Your task to perform on an android device: turn on translation in the chrome app Image 0: 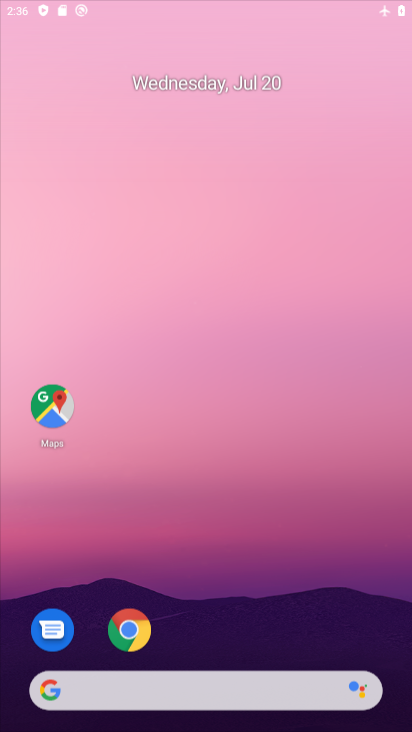
Step 0: drag from (217, 96) to (189, 57)
Your task to perform on an android device: turn on translation in the chrome app Image 1: 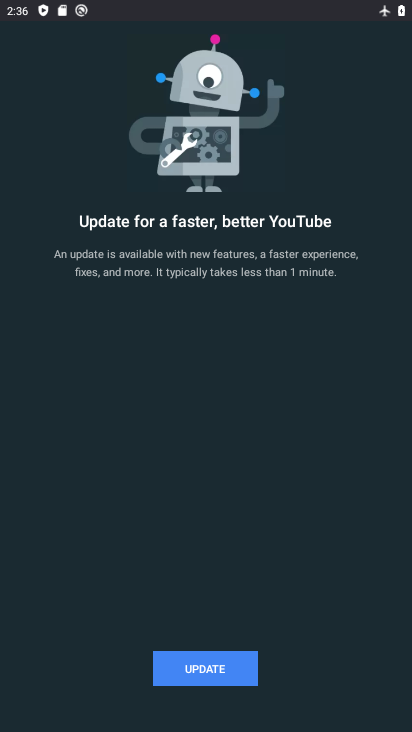
Step 1: press back button
Your task to perform on an android device: turn on translation in the chrome app Image 2: 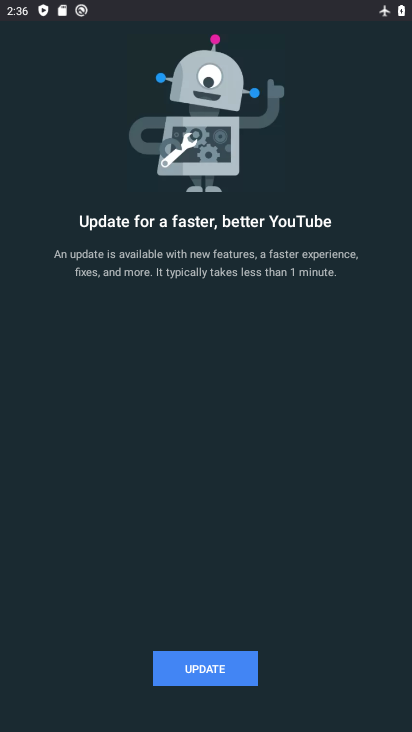
Step 2: press back button
Your task to perform on an android device: turn on translation in the chrome app Image 3: 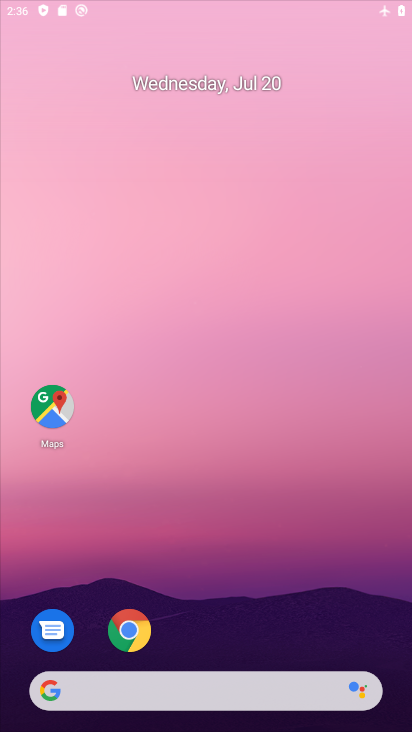
Step 3: press back button
Your task to perform on an android device: turn on translation in the chrome app Image 4: 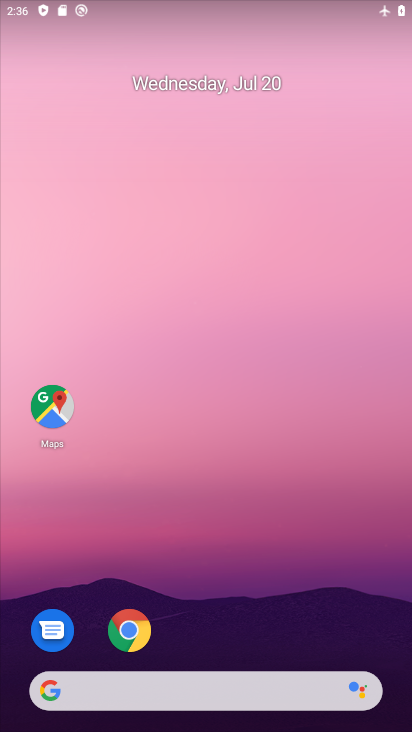
Step 4: click (186, 250)
Your task to perform on an android device: turn on translation in the chrome app Image 5: 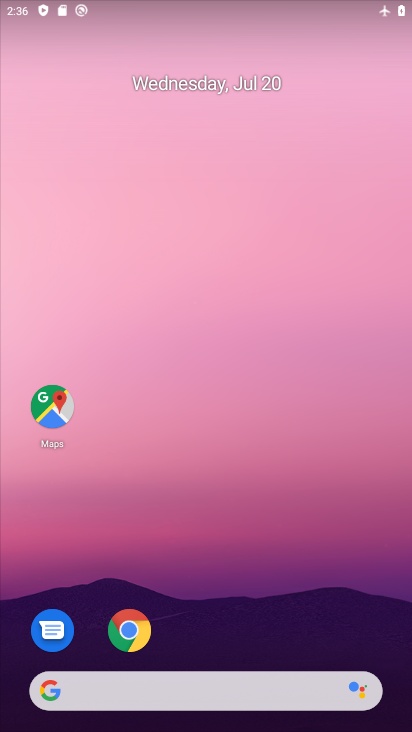
Step 5: drag from (217, 644) to (177, 344)
Your task to perform on an android device: turn on translation in the chrome app Image 6: 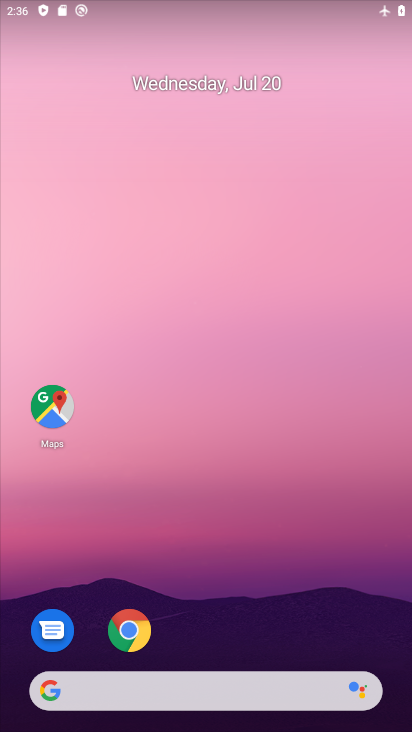
Step 6: drag from (172, 446) to (166, 13)
Your task to perform on an android device: turn on translation in the chrome app Image 7: 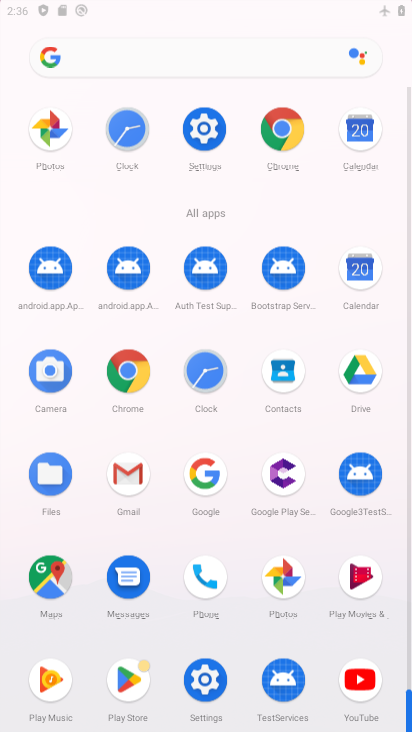
Step 7: drag from (249, 555) to (214, 117)
Your task to perform on an android device: turn on translation in the chrome app Image 8: 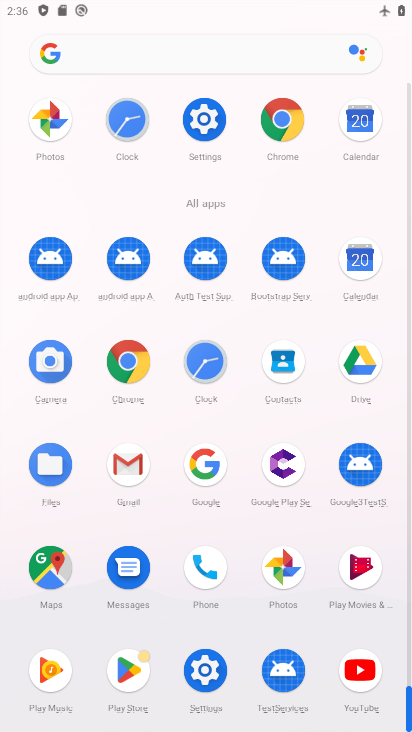
Step 8: click (292, 110)
Your task to perform on an android device: turn on translation in the chrome app Image 9: 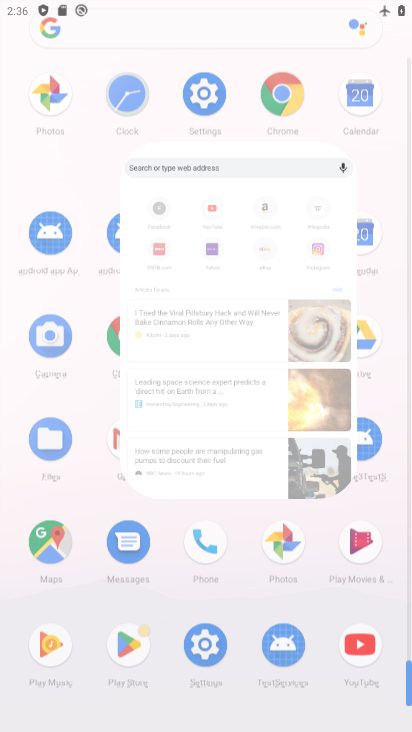
Step 9: click (289, 109)
Your task to perform on an android device: turn on translation in the chrome app Image 10: 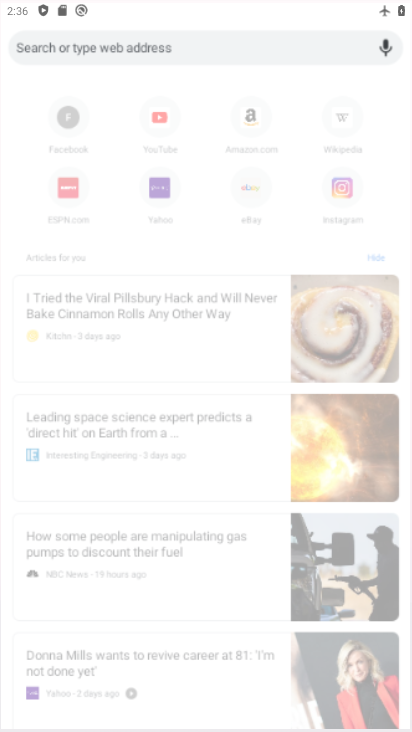
Step 10: click (289, 109)
Your task to perform on an android device: turn on translation in the chrome app Image 11: 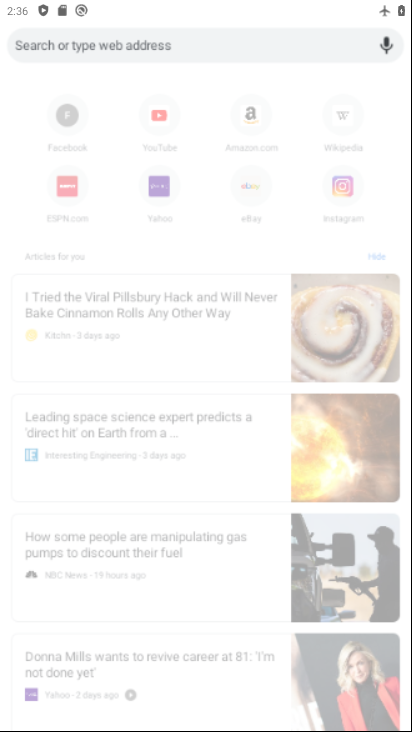
Step 11: click (289, 109)
Your task to perform on an android device: turn on translation in the chrome app Image 12: 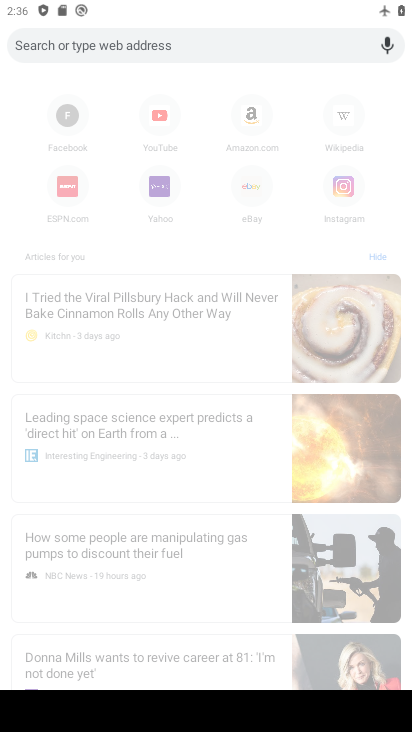
Step 12: click (259, 244)
Your task to perform on an android device: turn on translation in the chrome app Image 13: 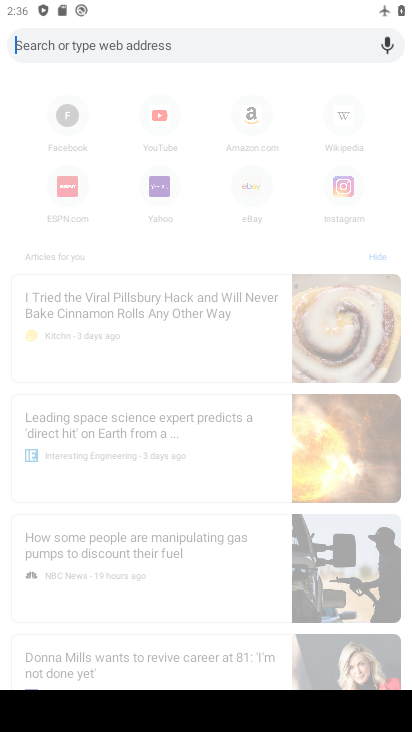
Step 13: click (259, 244)
Your task to perform on an android device: turn on translation in the chrome app Image 14: 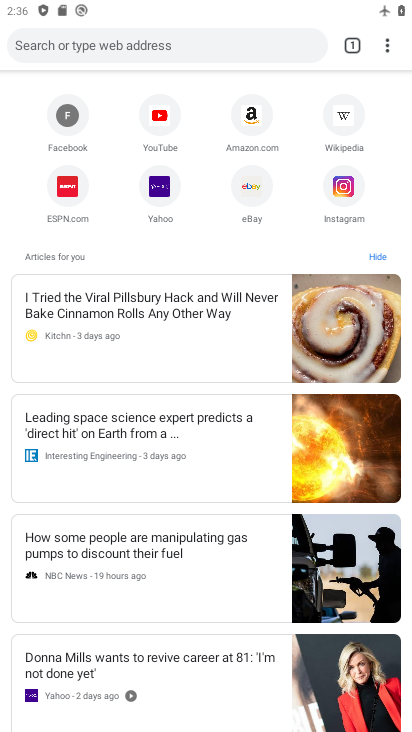
Step 14: click (224, 192)
Your task to perform on an android device: turn on translation in the chrome app Image 15: 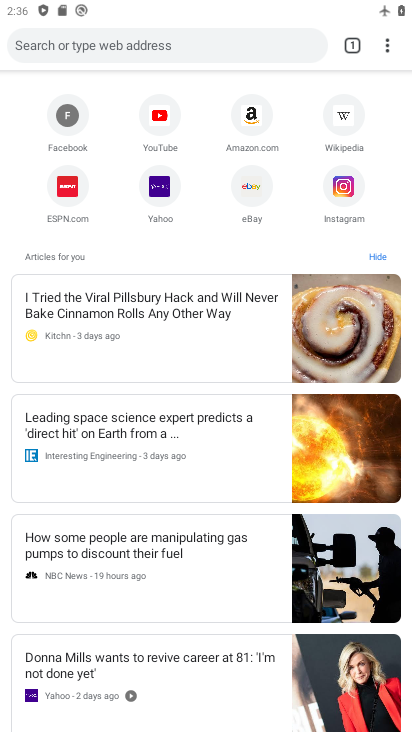
Step 15: drag from (390, 47) to (235, 499)
Your task to perform on an android device: turn on translation in the chrome app Image 16: 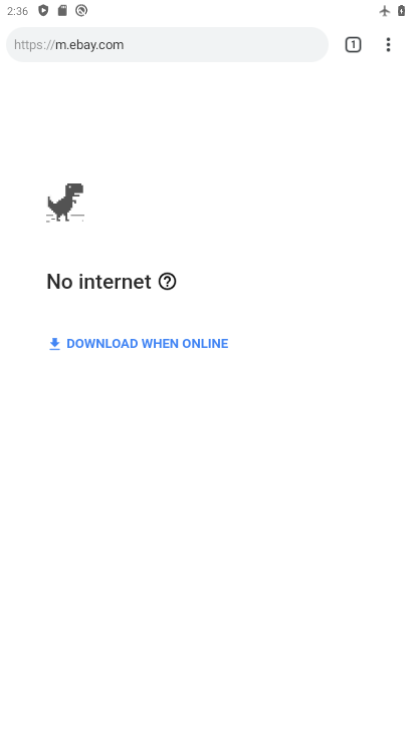
Step 16: click (235, 500)
Your task to perform on an android device: turn on translation in the chrome app Image 17: 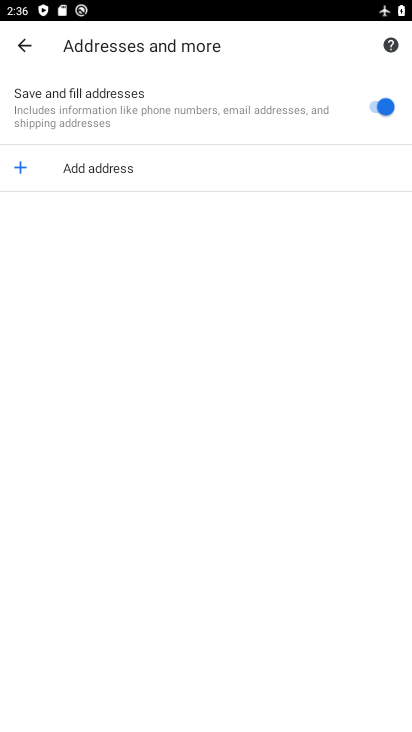
Step 17: click (33, 48)
Your task to perform on an android device: turn on translation in the chrome app Image 18: 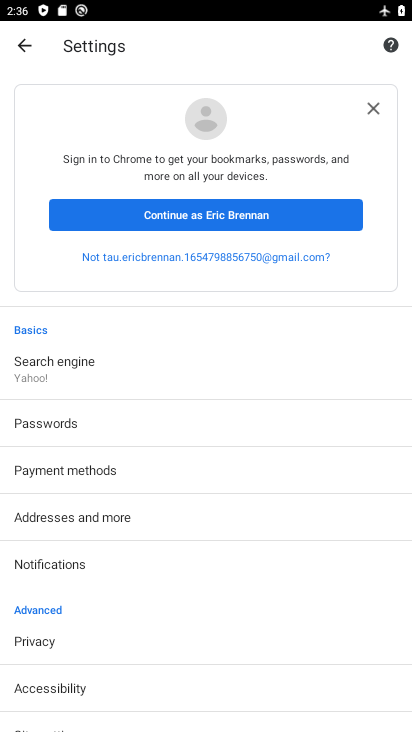
Step 18: click (376, 107)
Your task to perform on an android device: turn on translation in the chrome app Image 19: 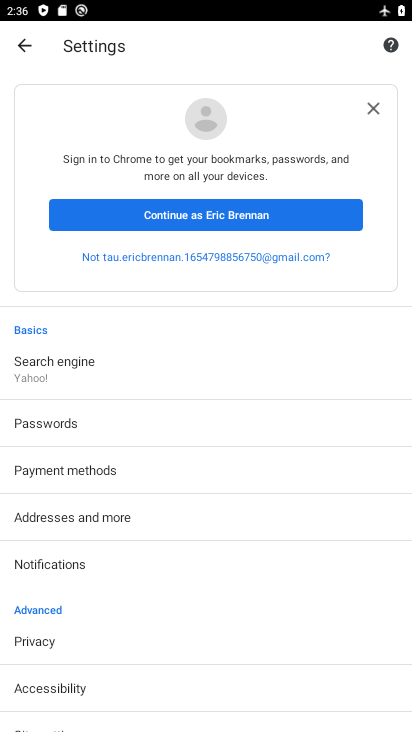
Step 19: click (373, 103)
Your task to perform on an android device: turn on translation in the chrome app Image 20: 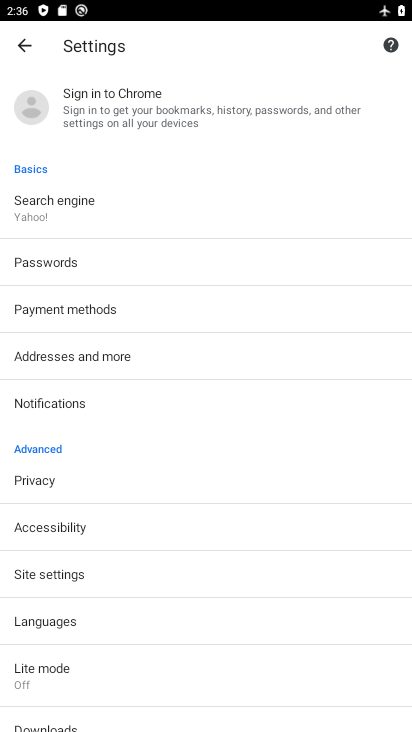
Step 20: click (65, 623)
Your task to perform on an android device: turn on translation in the chrome app Image 21: 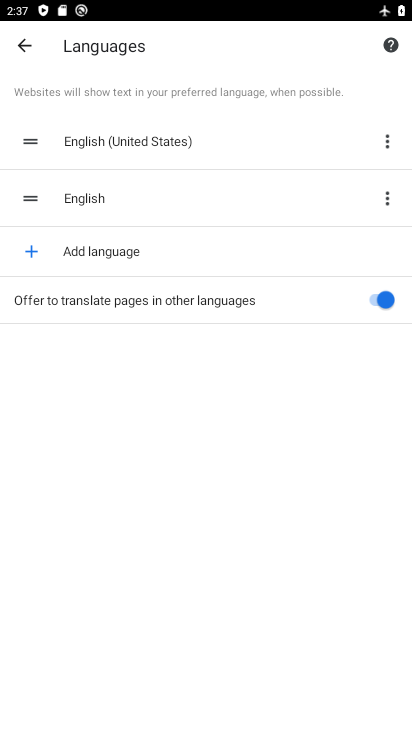
Step 21: task complete